Your task to perform on an android device: Search for razer nari on target, select the first entry, add it to the cart, then select checkout. Image 0: 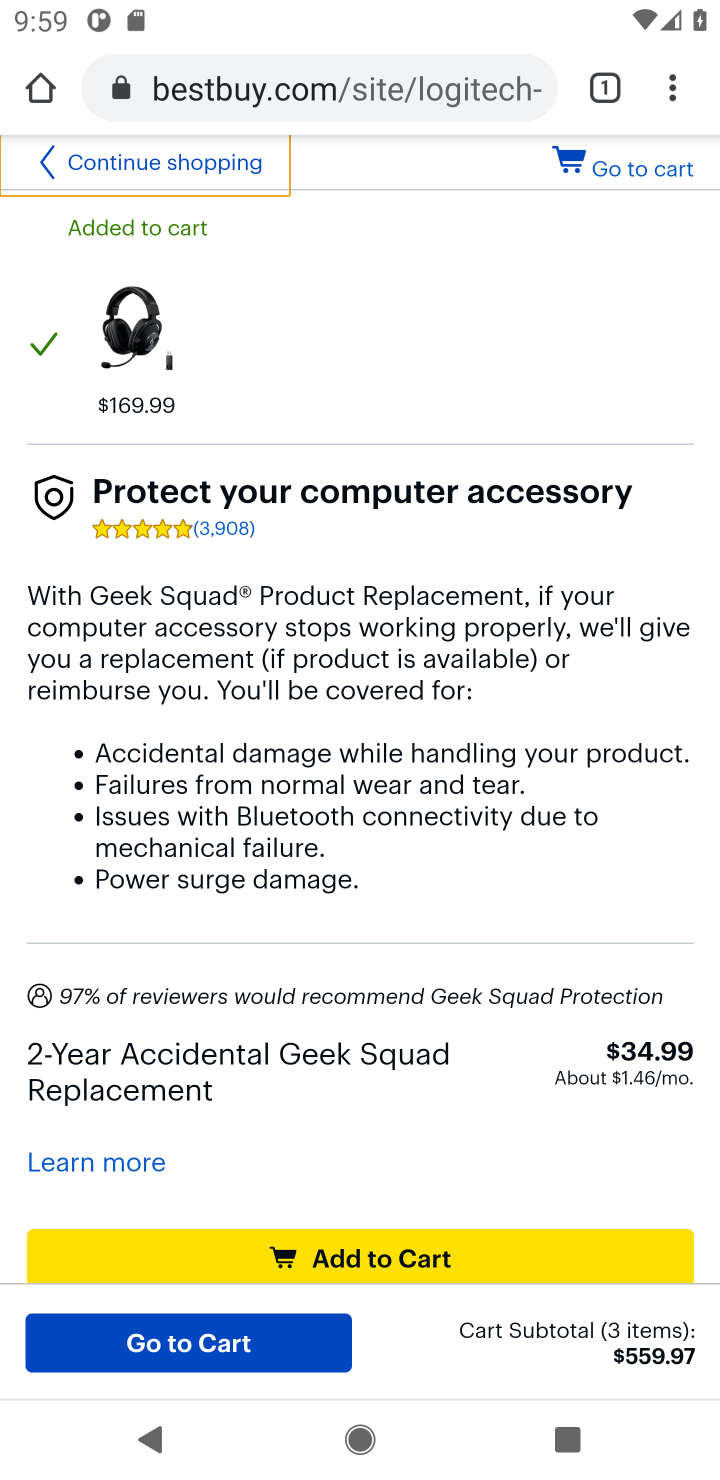
Step 0: press home button
Your task to perform on an android device: Search for razer nari on target, select the first entry, add it to the cart, then select checkout. Image 1: 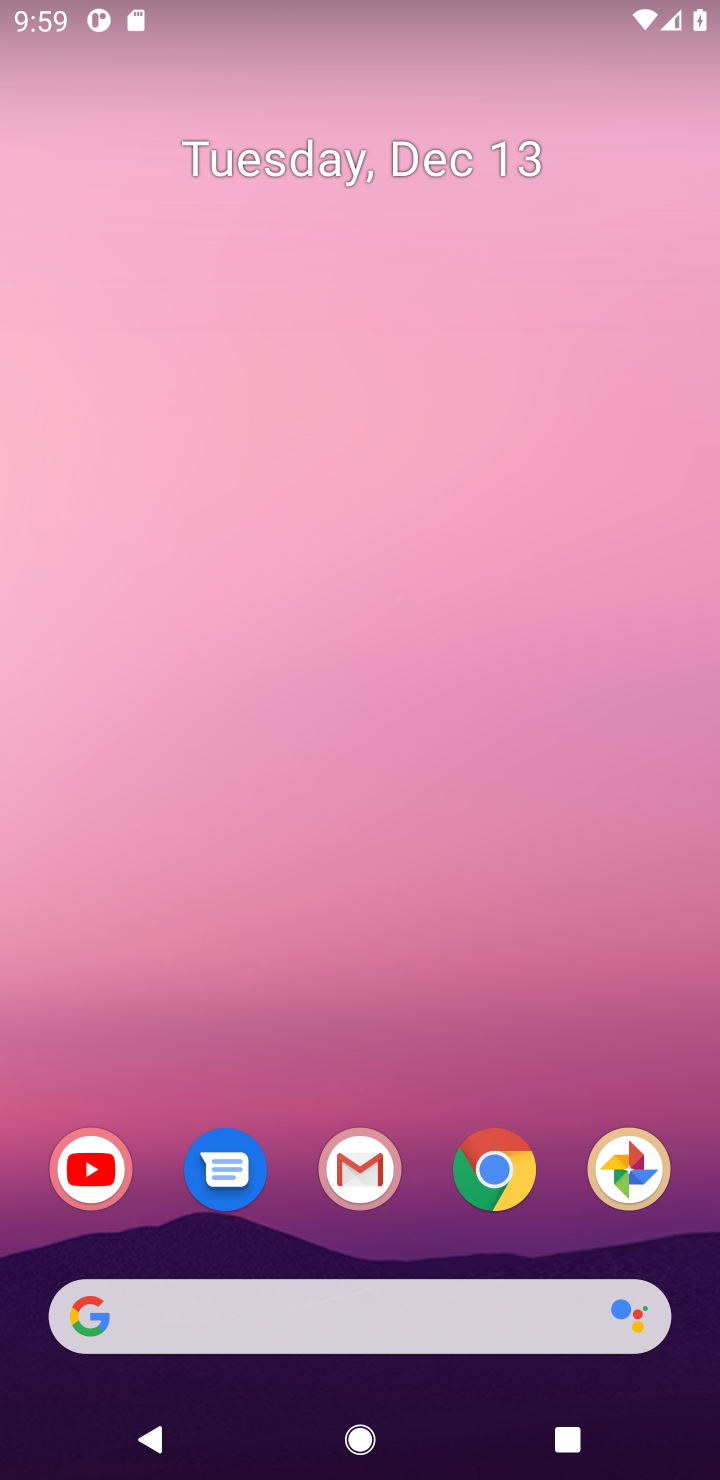
Step 1: click (506, 1185)
Your task to perform on an android device: Search for razer nari on target, select the first entry, add it to the cart, then select checkout. Image 2: 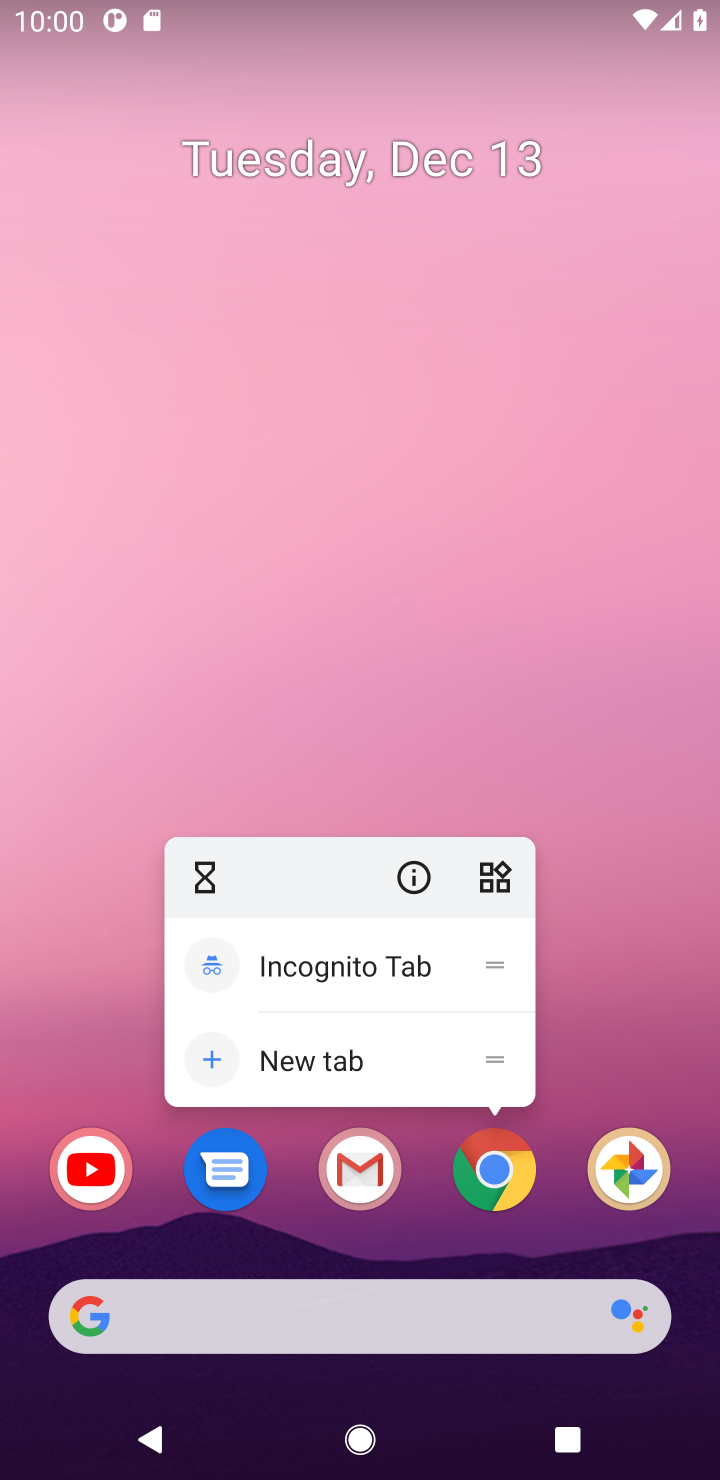
Step 2: click (392, 1303)
Your task to perform on an android device: Search for razer nari on target, select the first entry, add it to the cart, then select checkout. Image 3: 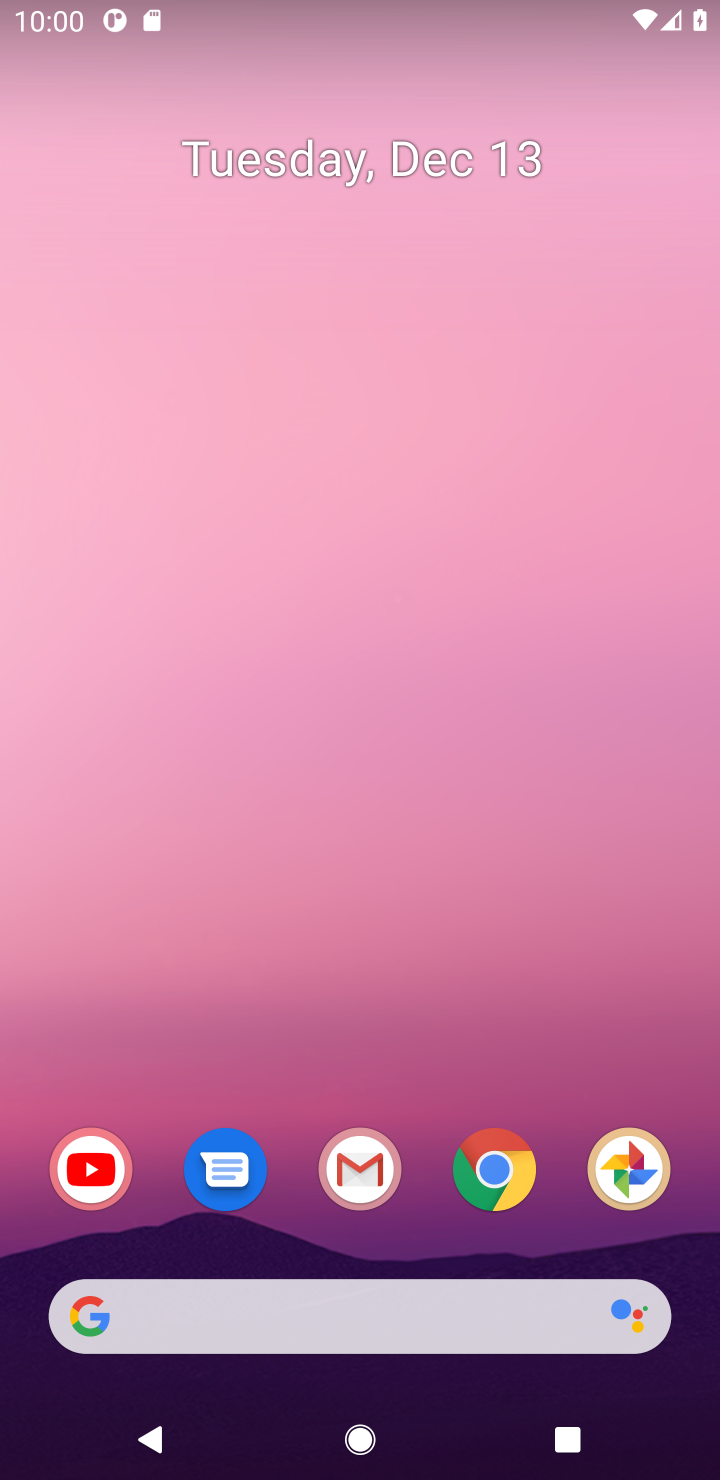
Step 3: click (392, 1303)
Your task to perform on an android device: Search for razer nari on target, select the first entry, add it to the cart, then select checkout. Image 4: 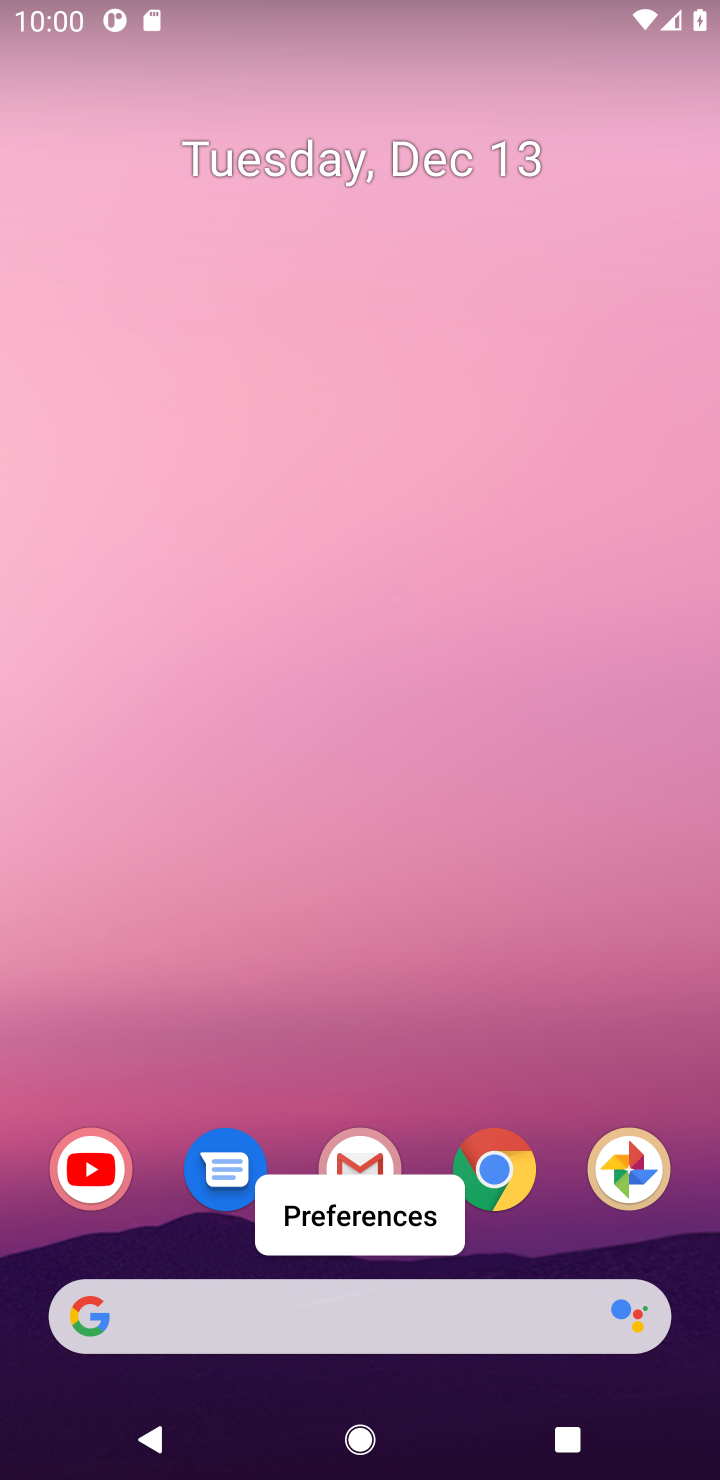
Step 4: click (227, 1318)
Your task to perform on an android device: Search for razer nari on target, select the first entry, add it to the cart, then select checkout. Image 5: 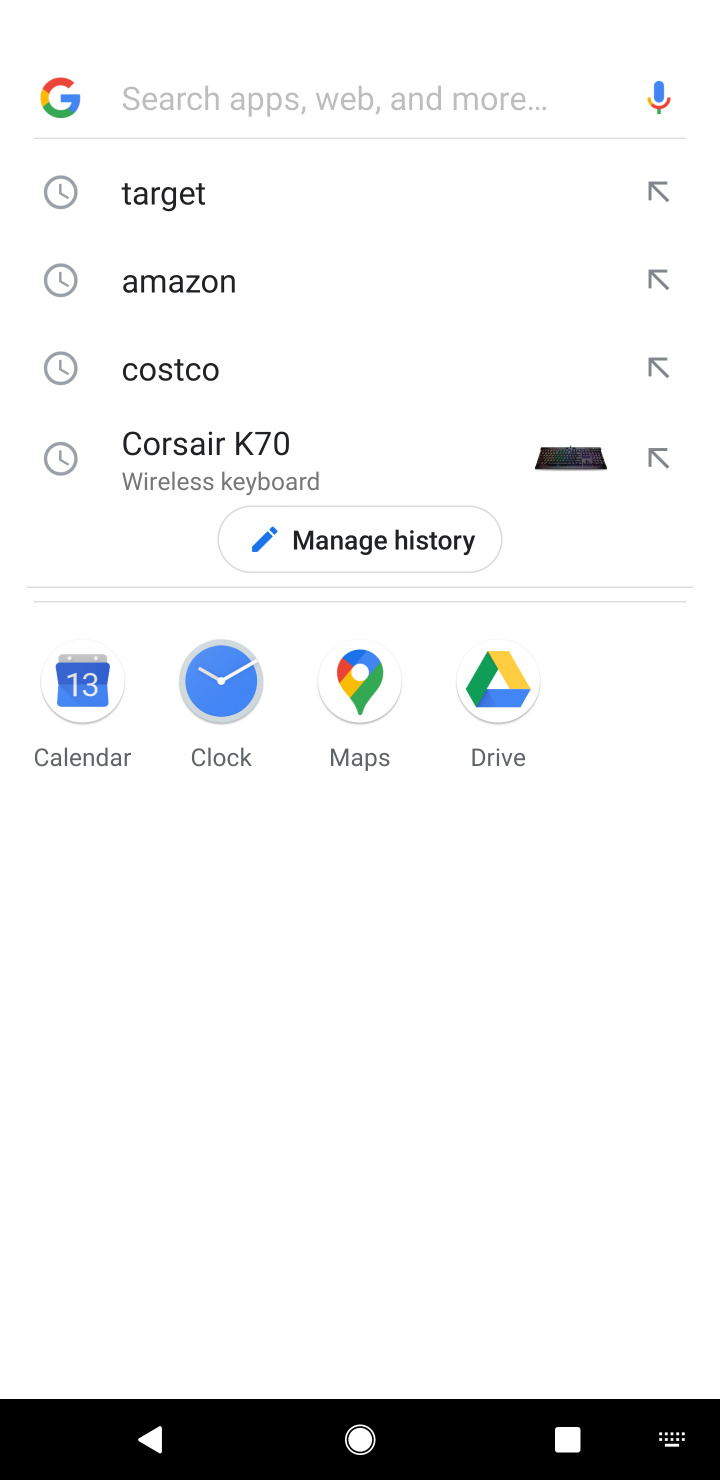
Step 5: click (157, 189)
Your task to perform on an android device: Search for razer nari on target, select the first entry, add it to the cart, then select checkout. Image 6: 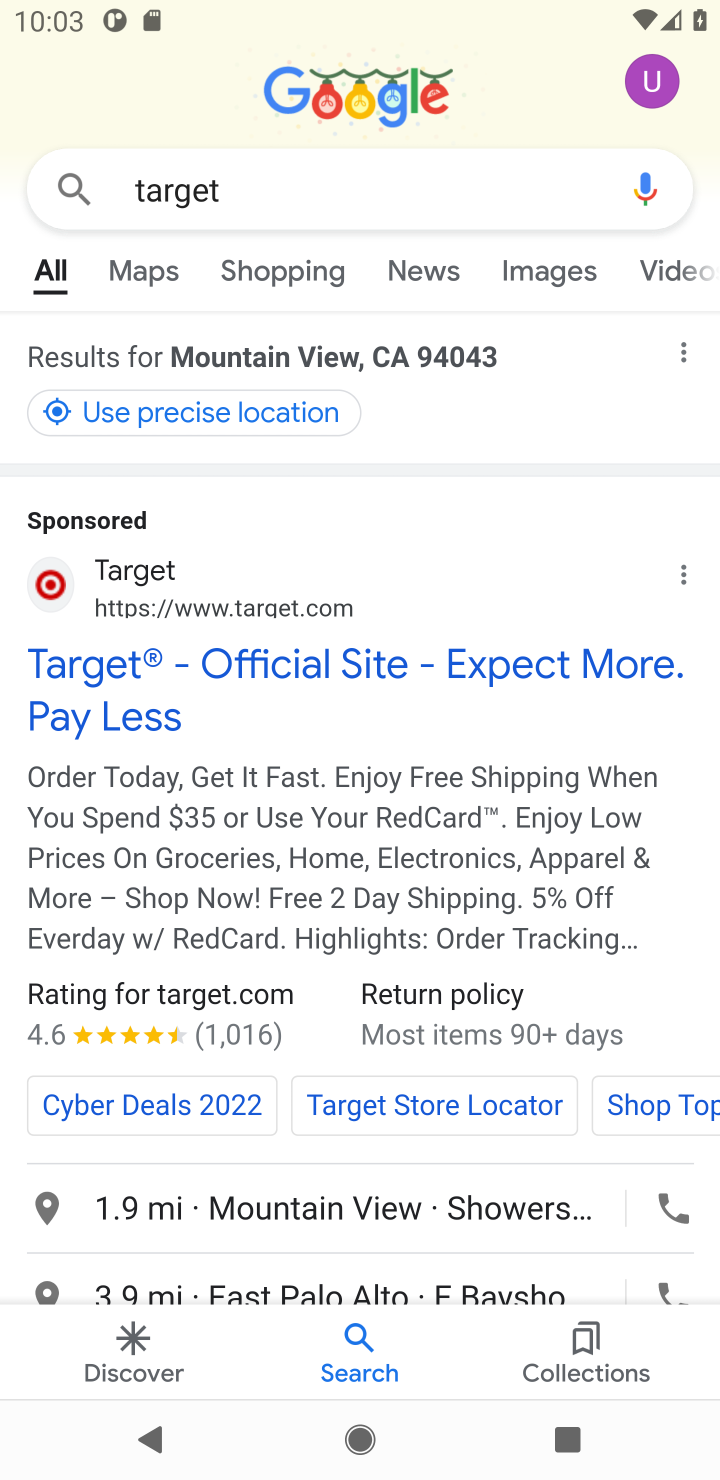
Step 6: click (88, 636)
Your task to perform on an android device: Search for razer nari on target, select the first entry, add it to the cart, then select checkout. Image 7: 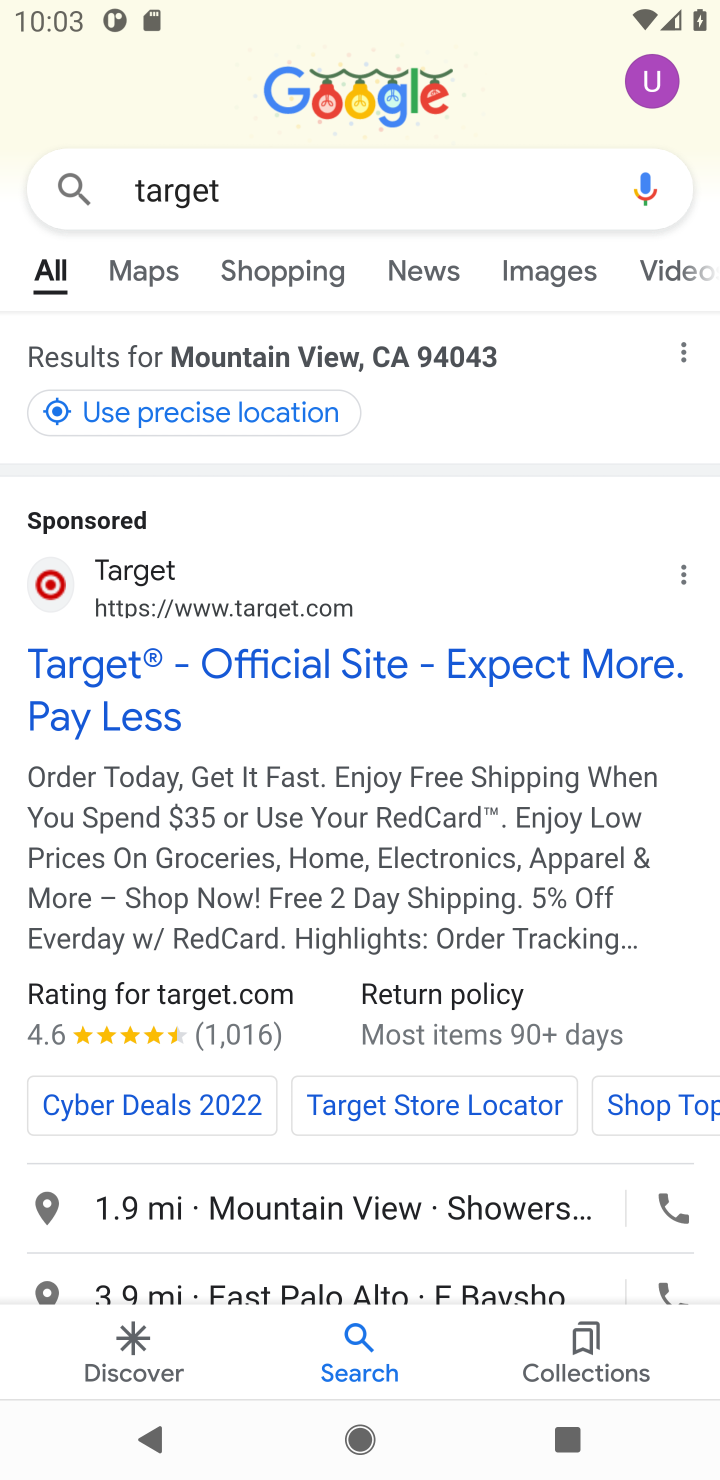
Step 7: task complete